Your task to perform on an android device: Go to wifi settings Image 0: 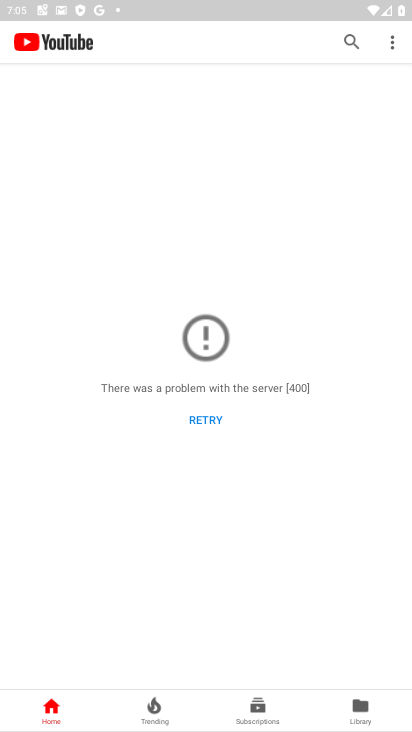
Step 0: press home button
Your task to perform on an android device: Go to wifi settings Image 1: 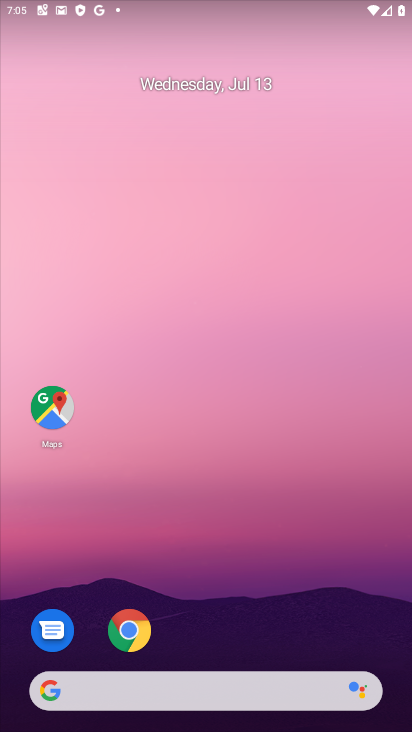
Step 1: drag from (330, 664) to (340, 37)
Your task to perform on an android device: Go to wifi settings Image 2: 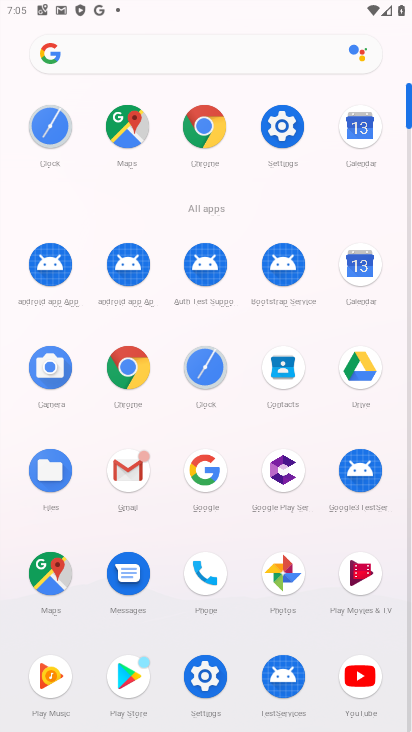
Step 2: click (283, 129)
Your task to perform on an android device: Go to wifi settings Image 3: 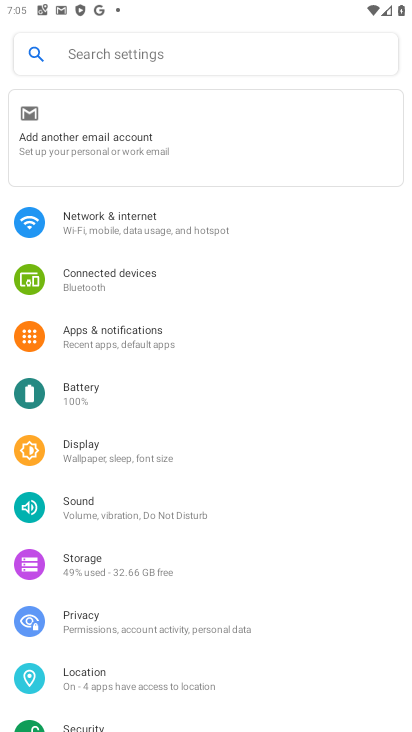
Step 3: click (138, 230)
Your task to perform on an android device: Go to wifi settings Image 4: 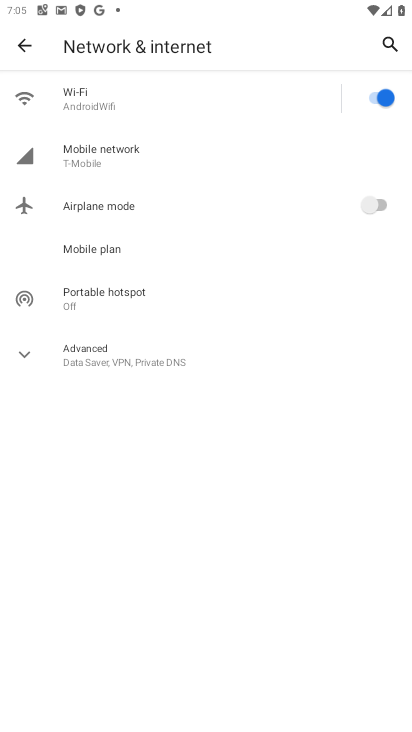
Step 4: click (69, 91)
Your task to perform on an android device: Go to wifi settings Image 5: 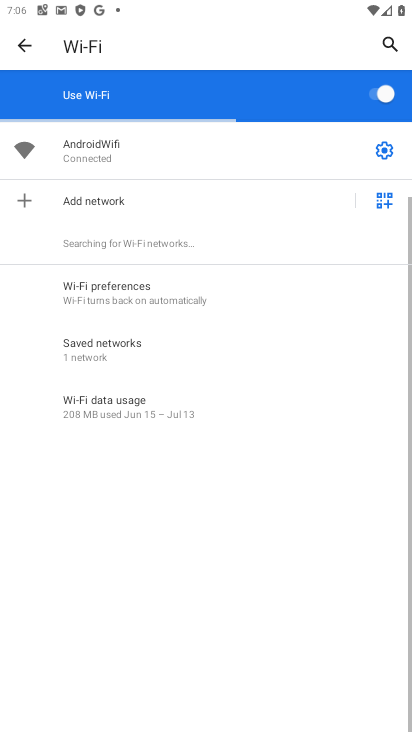
Step 5: task complete